Your task to perform on an android device: Go to Maps Image 0: 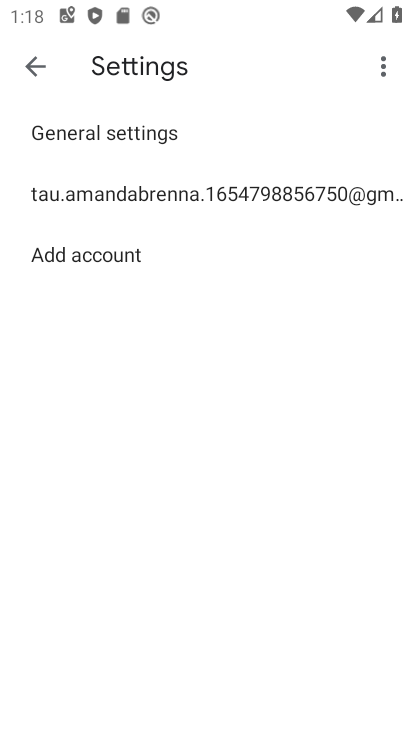
Step 0: press home button
Your task to perform on an android device: Go to Maps Image 1: 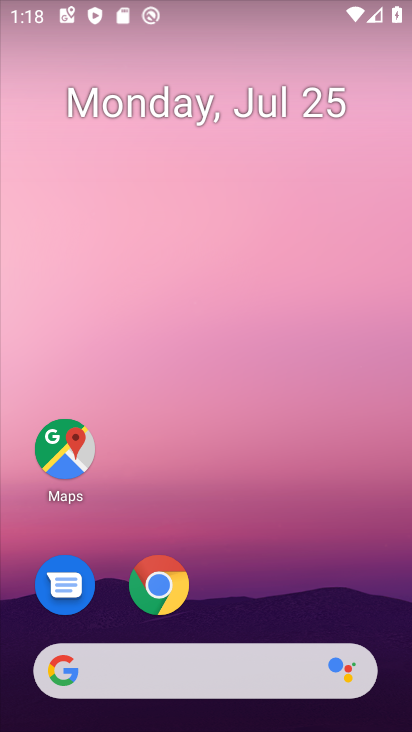
Step 1: click (67, 459)
Your task to perform on an android device: Go to Maps Image 2: 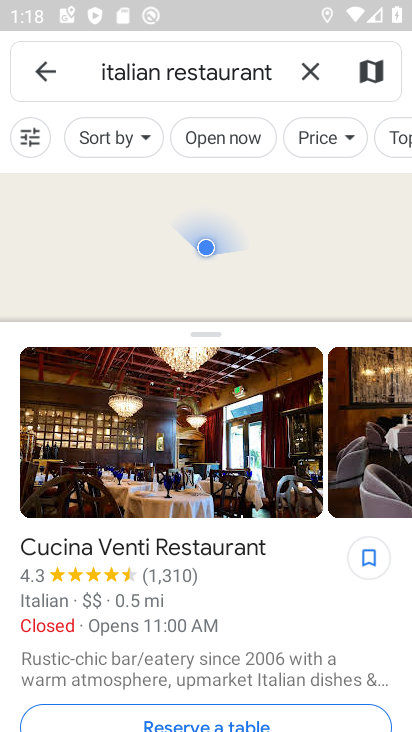
Step 2: click (308, 69)
Your task to perform on an android device: Go to Maps Image 3: 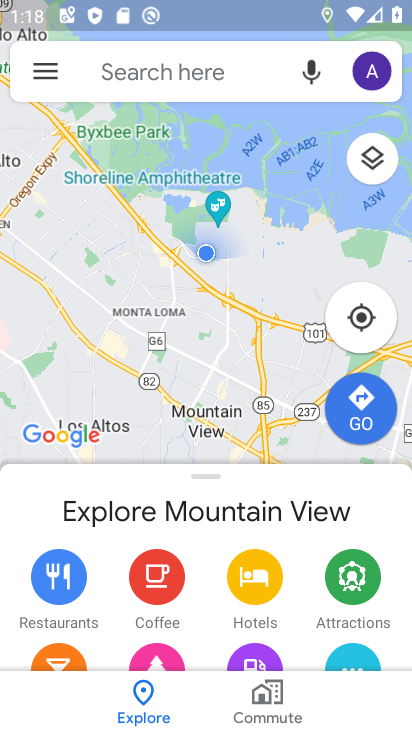
Step 3: task complete